Your task to perform on an android device: open app "Spotify: Music and Podcasts" Image 0: 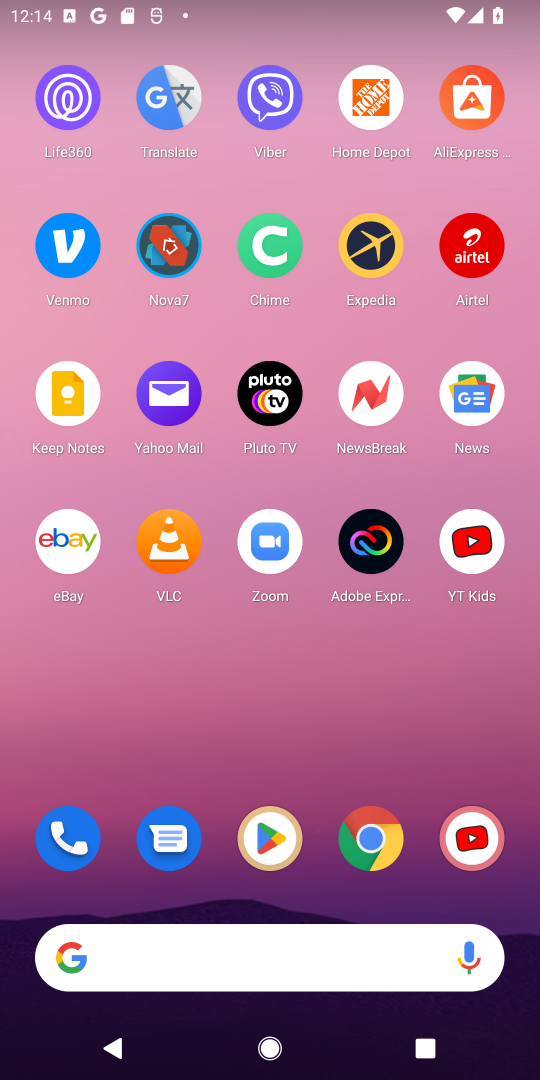
Step 0: click (268, 839)
Your task to perform on an android device: open app "Spotify: Music and Podcasts" Image 1: 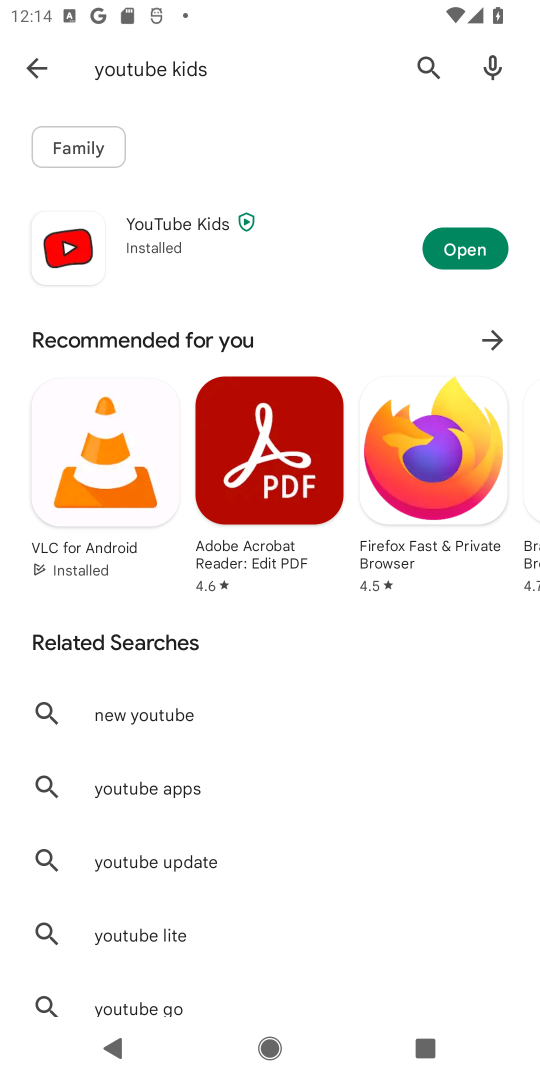
Step 1: click (415, 63)
Your task to perform on an android device: open app "Spotify: Music and Podcasts" Image 2: 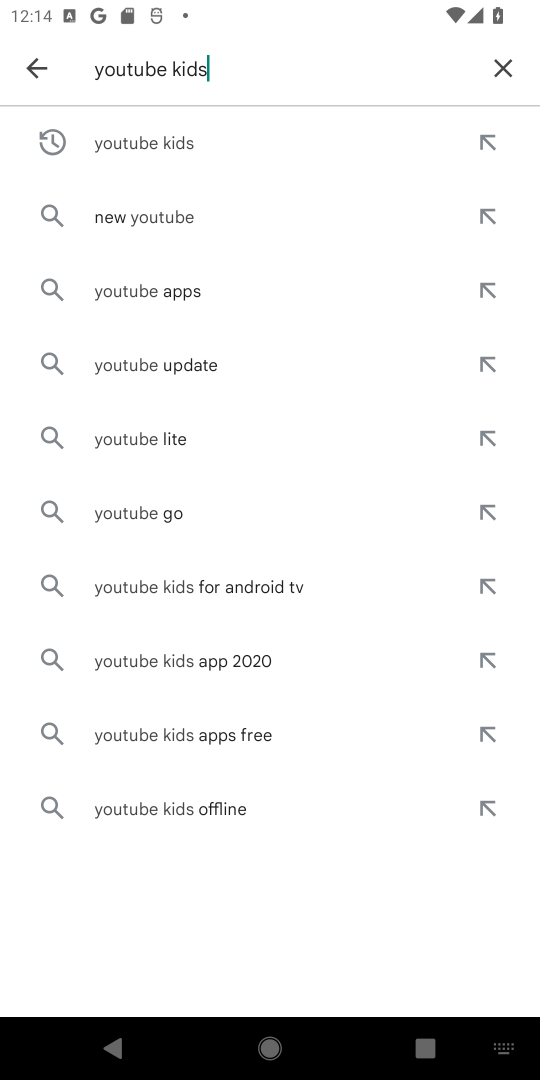
Step 2: click (507, 60)
Your task to perform on an android device: open app "Spotify: Music and Podcasts" Image 3: 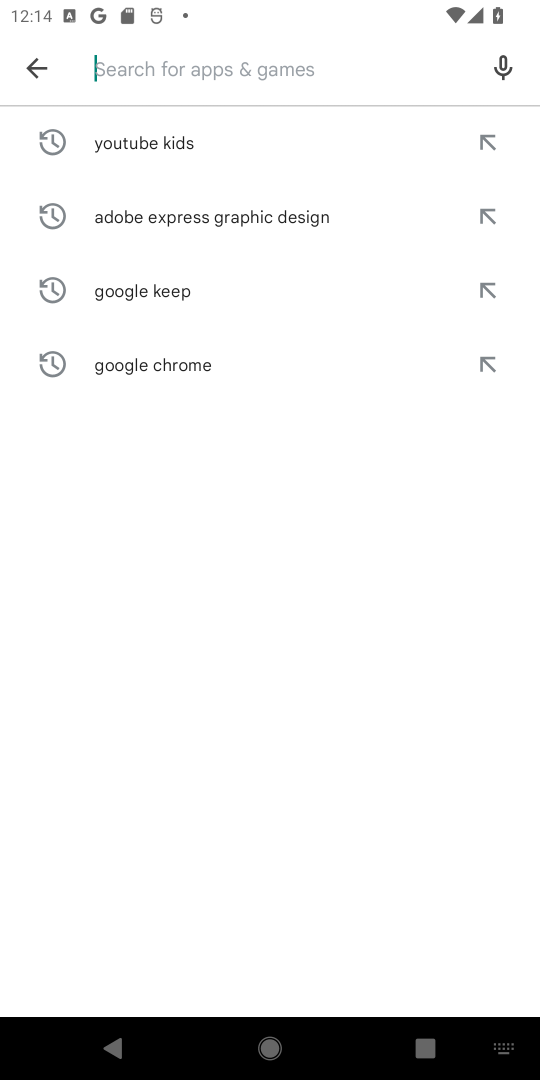
Step 3: type "Spotify: Music and Podcasts"
Your task to perform on an android device: open app "Spotify: Music and Podcasts" Image 4: 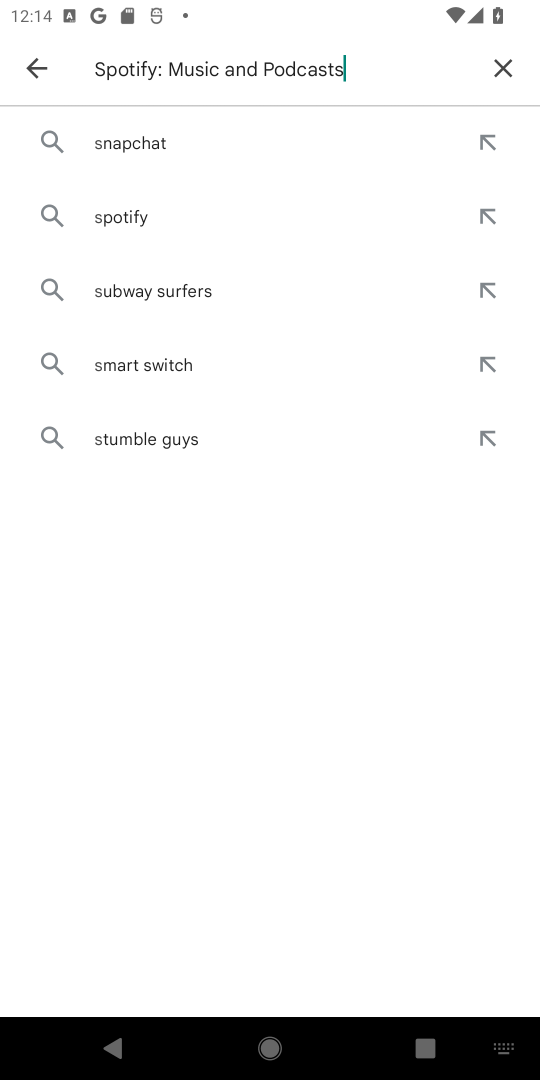
Step 4: type ""
Your task to perform on an android device: open app "Spotify: Music and Podcasts" Image 5: 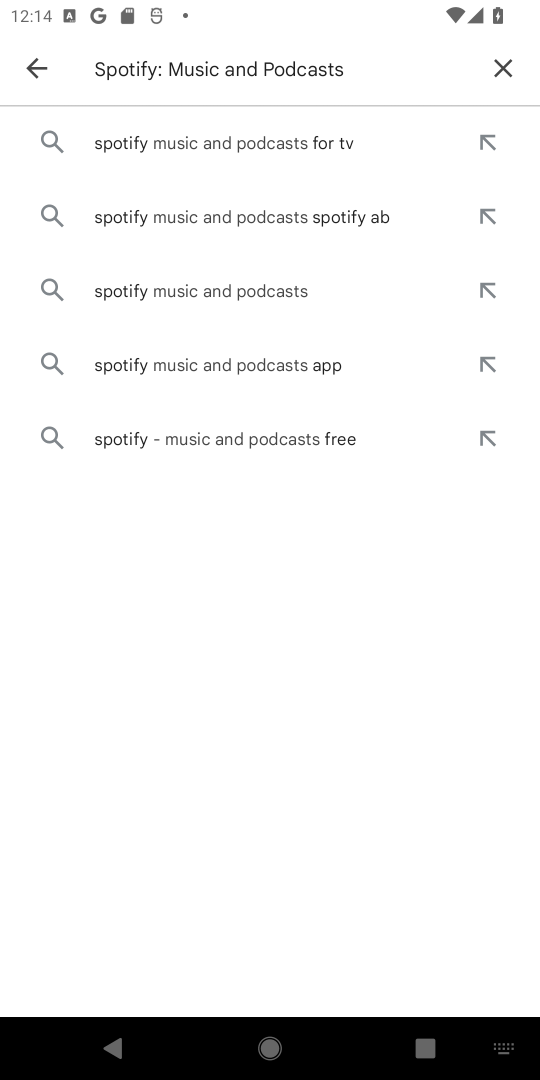
Step 5: click (237, 137)
Your task to perform on an android device: open app "Spotify: Music and Podcasts" Image 6: 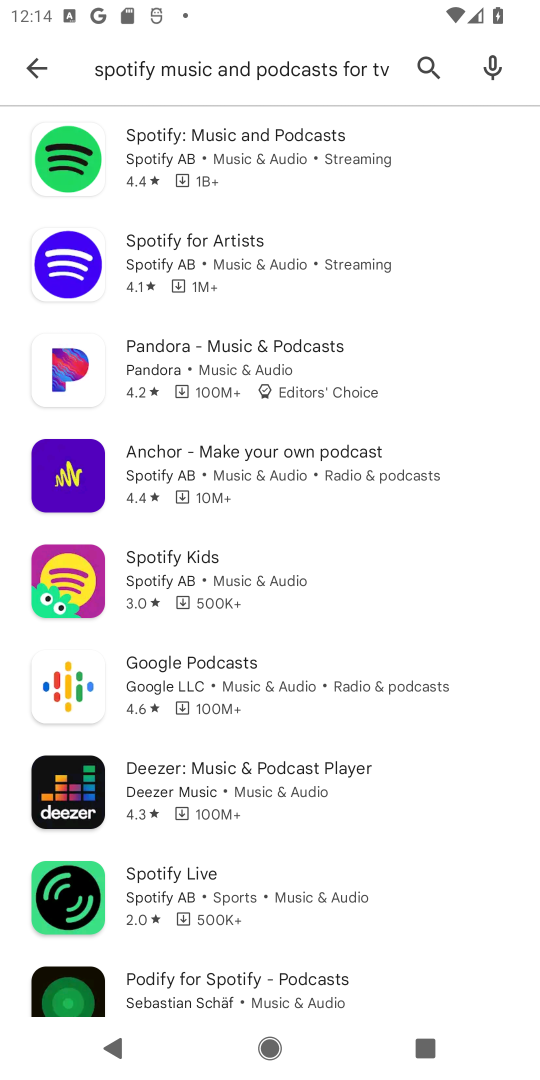
Step 6: click (237, 137)
Your task to perform on an android device: open app "Spotify: Music and Podcasts" Image 7: 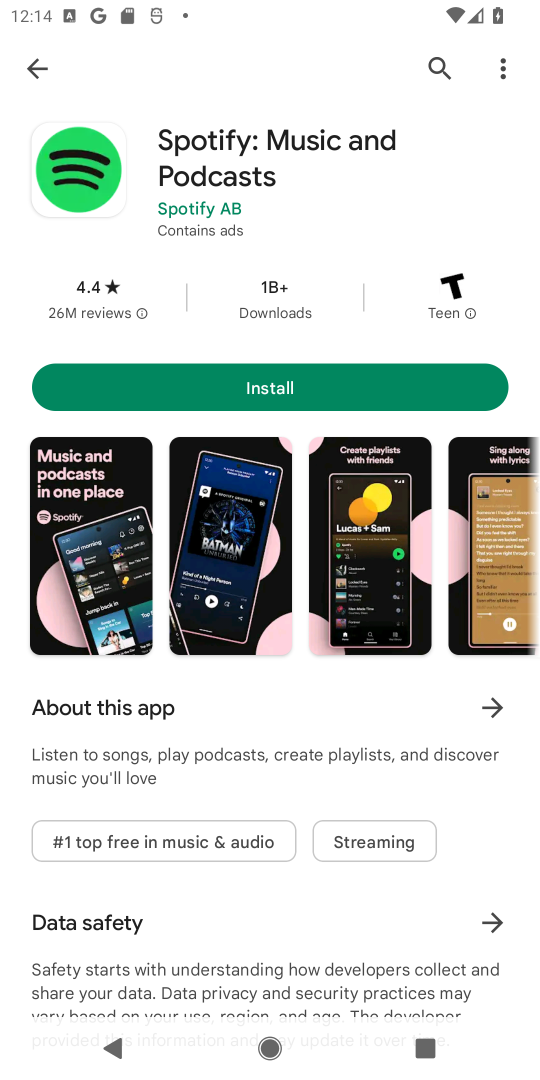
Step 7: task complete